Your task to perform on an android device: Search for "dell xps" on newegg, select the first entry, add it to the cart, then select checkout. Image 0: 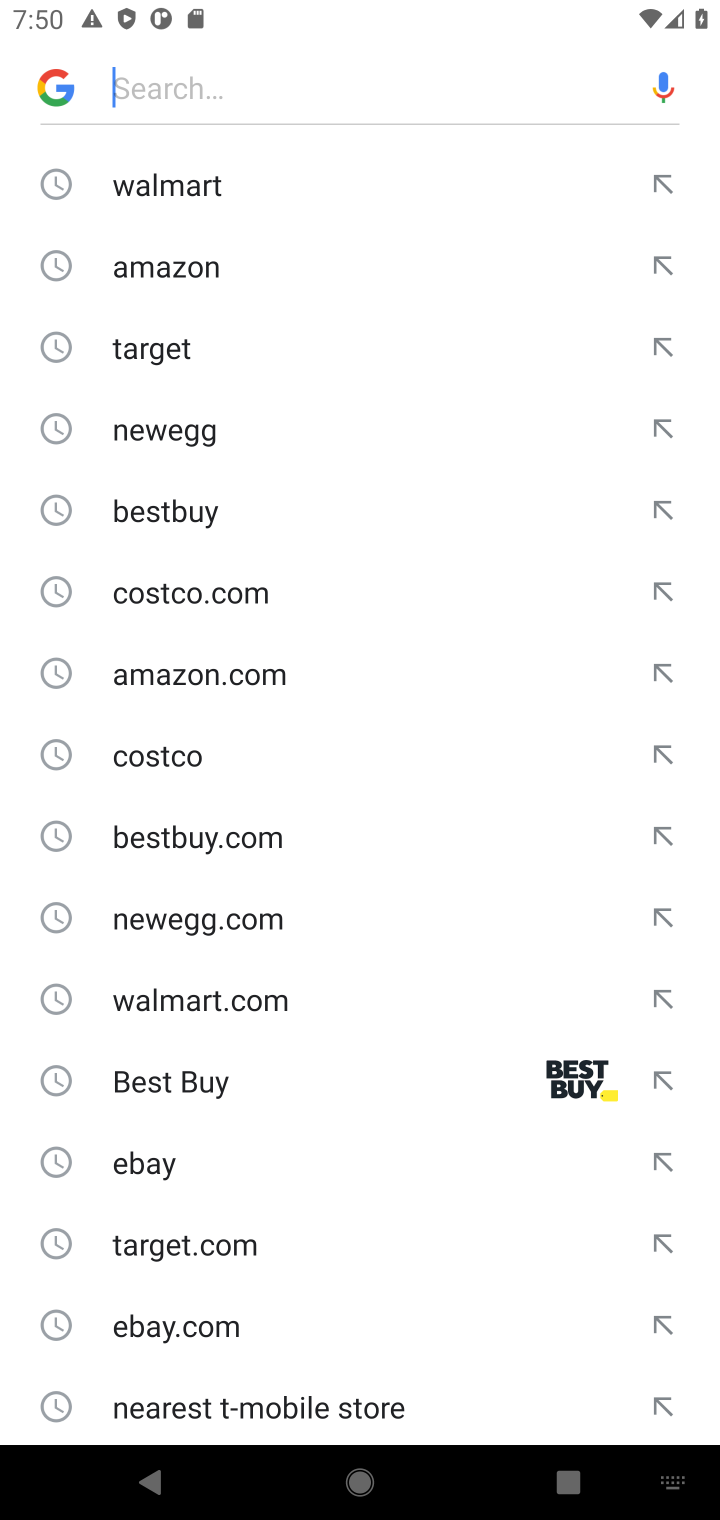
Step 0: type "newegg.com"
Your task to perform on an android device: Search for "dell xps" on newegg, select the first entry, add it to the cart, then select checkout. Image 1: 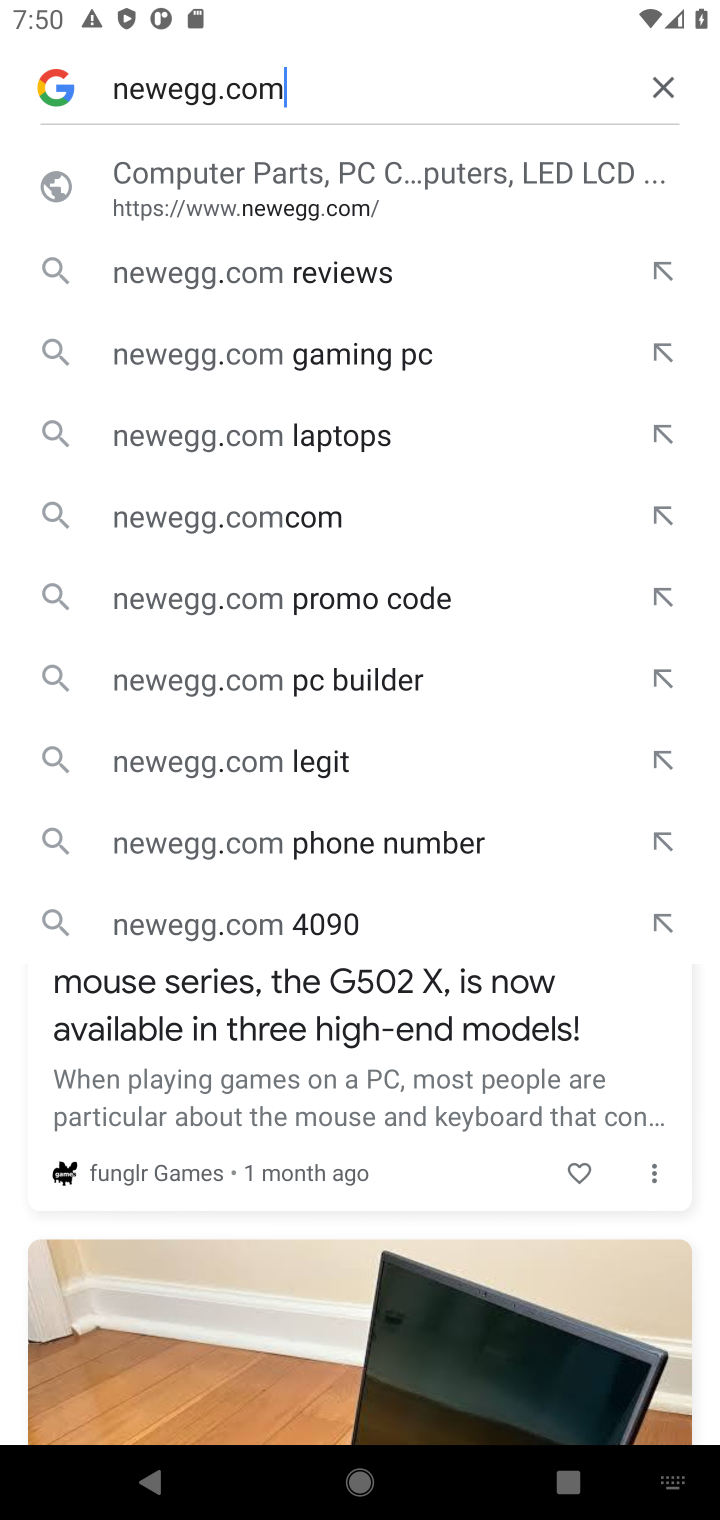
Step 1: click (192, 213)
Your task to perform on an android device: Search for "dell xps" on newegg, select the first entry, add it to the cart, then select checkout. Image 2: 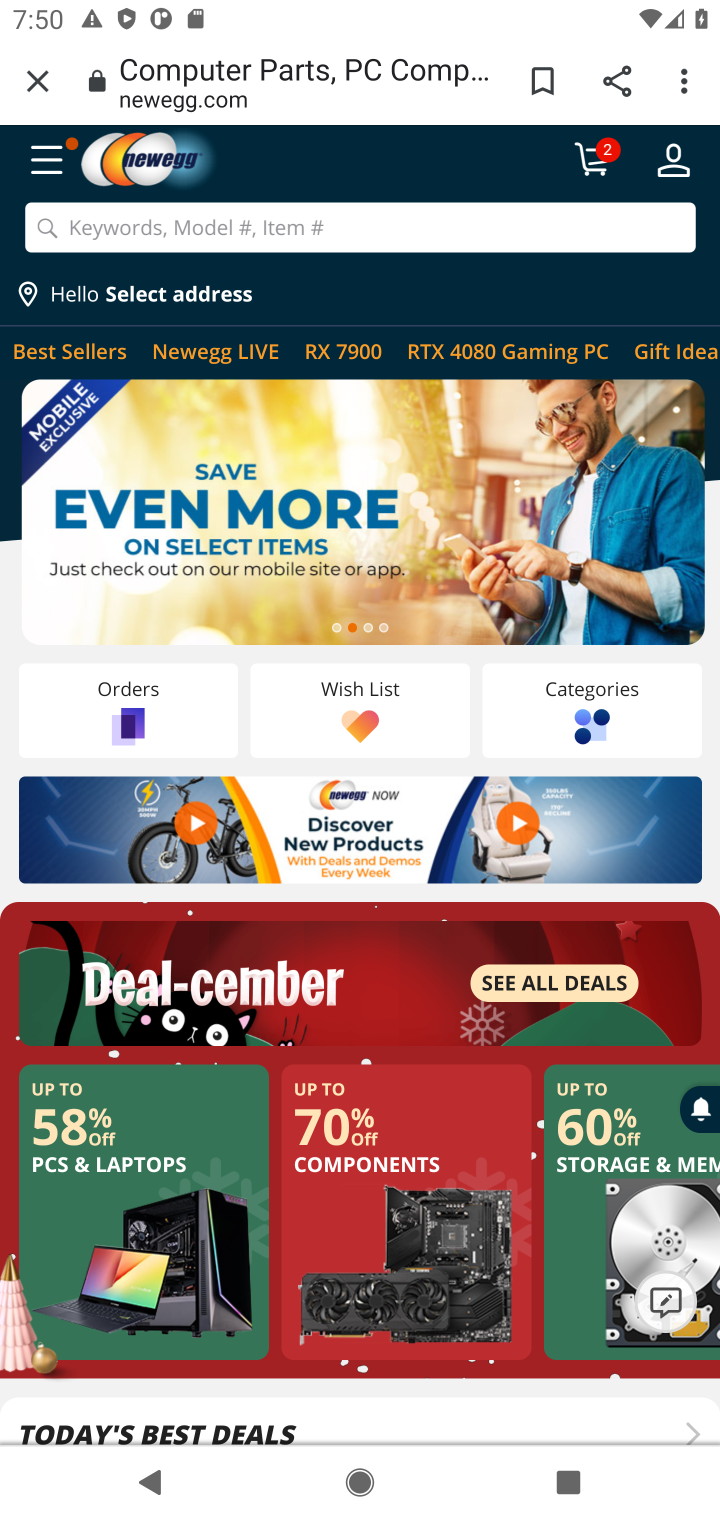
Step 2: click (203, 235)
Your task to perform on an android device: Search for "dell xps" on newegg, select the first entry, add it to the cart, then select checkout. Image 3: 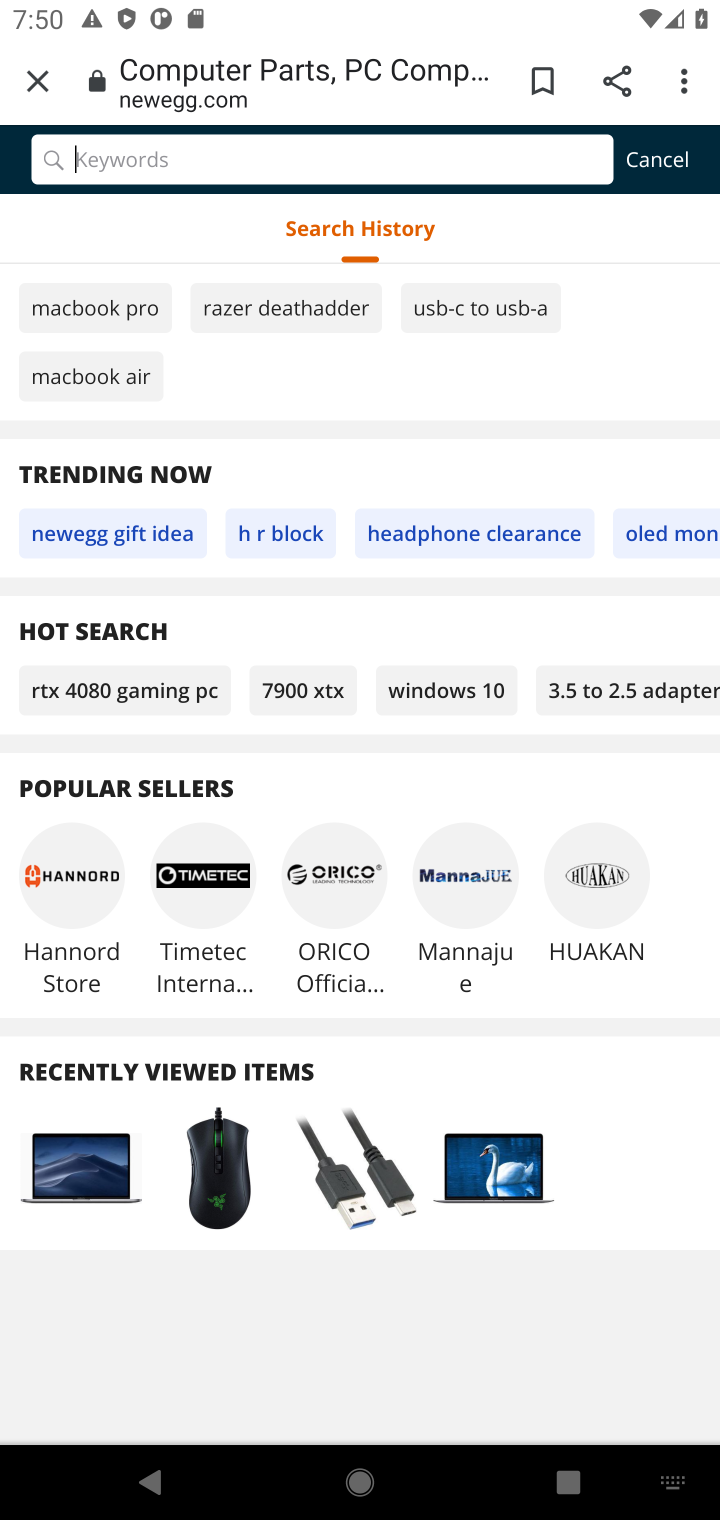
Step 3: type "dell xps"
Your task to perform on an android device: Search for "dell xps" on newegg, select the first entry, add it to the cart, then select checkout. Image 4: 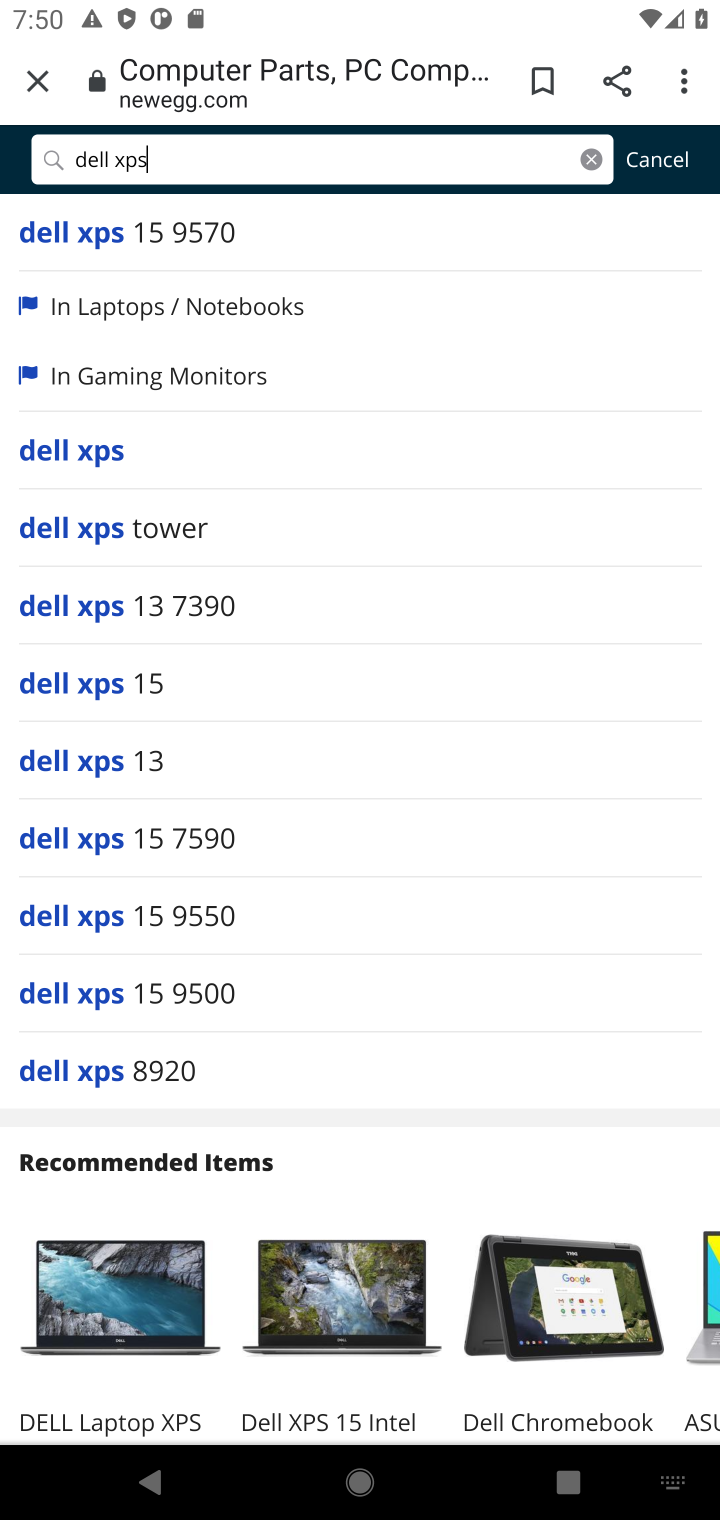
Step 4: click (93, 440)
Your task to perform on an android device: Search for "dell xps" on newegg, select the first entry, add it to the cart, then select checkout. Image 5: 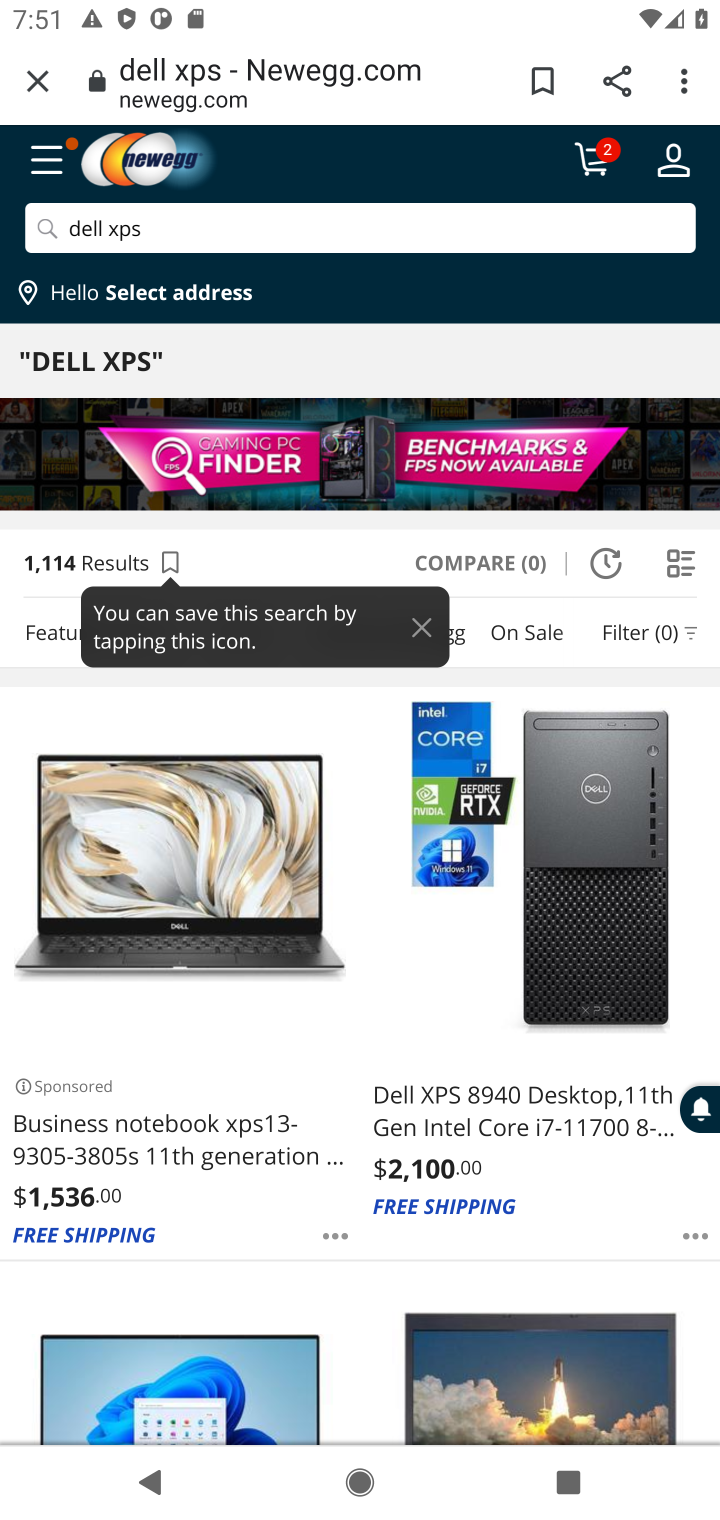
Step 5: click (152, 1139)
Your task to perform on an android device: Search for "dell xps" on newegg, select the first entry, add it to the cart, then select checkout. Image 6: 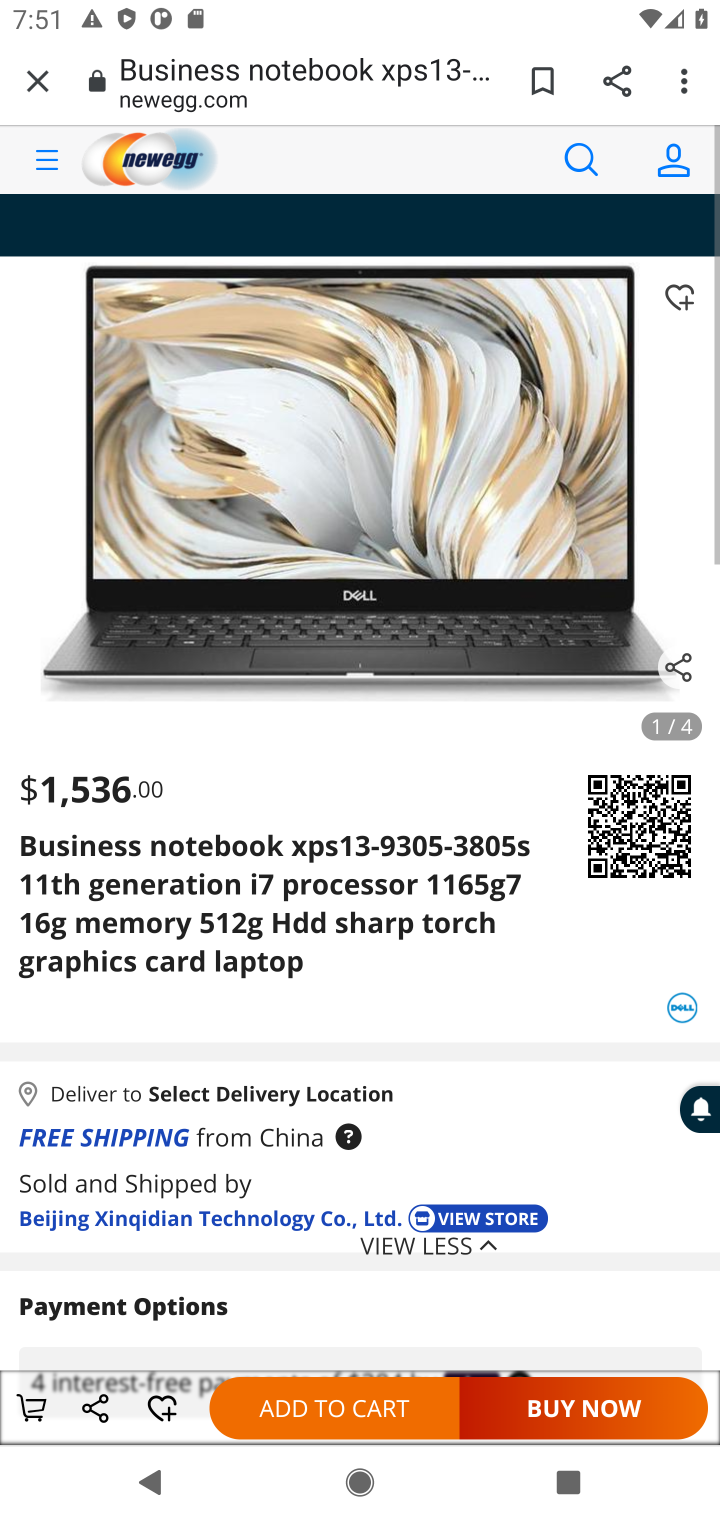
Step 6: click (308, 1398)
Your task to perform on an android device: Search for "dell xps" on newegg, select the first entry, add it to the cart, then select checkout. Image 7: 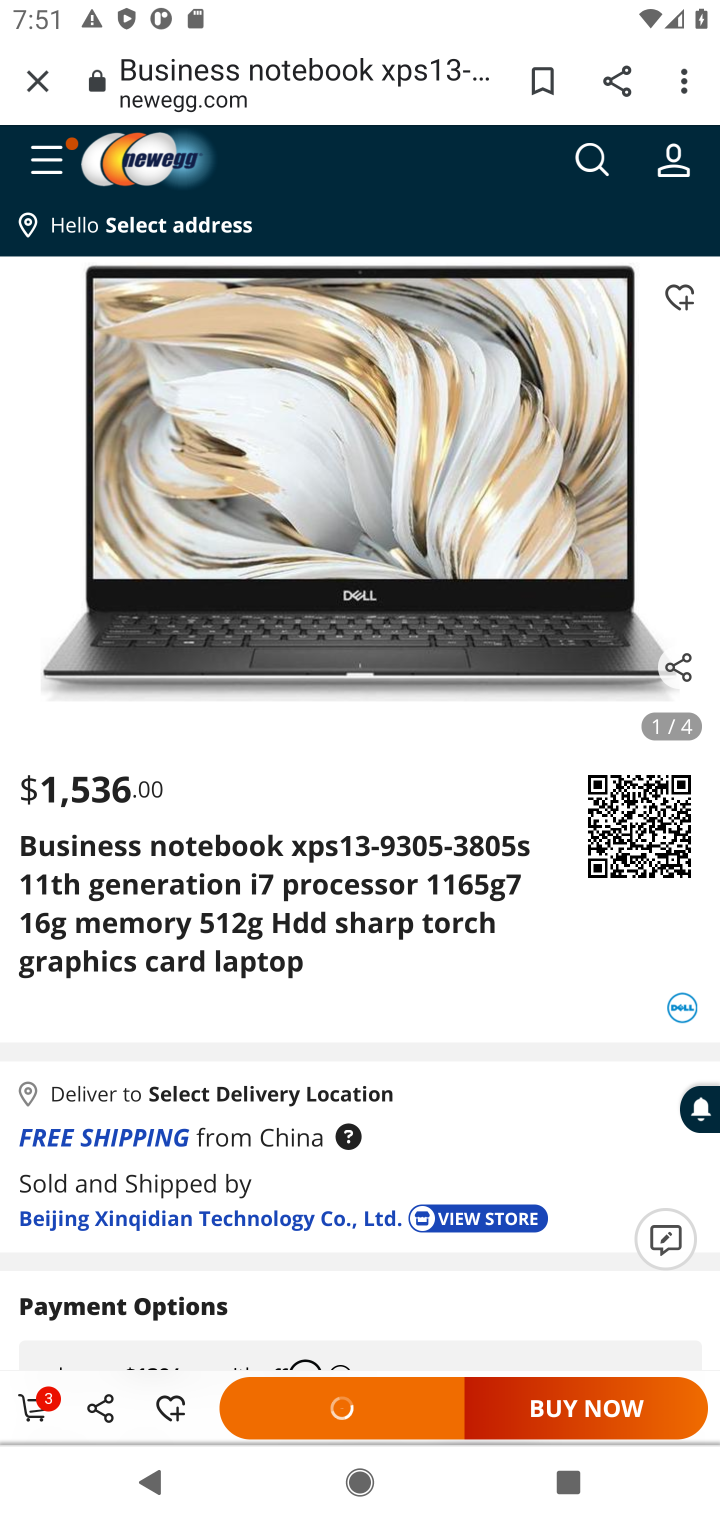
Step 7: click (31, 1408)
Your task to perform on an android device: Search for "dell xps" on newegg, select the first entry, add it to the cart, then select checkout. Image 8: 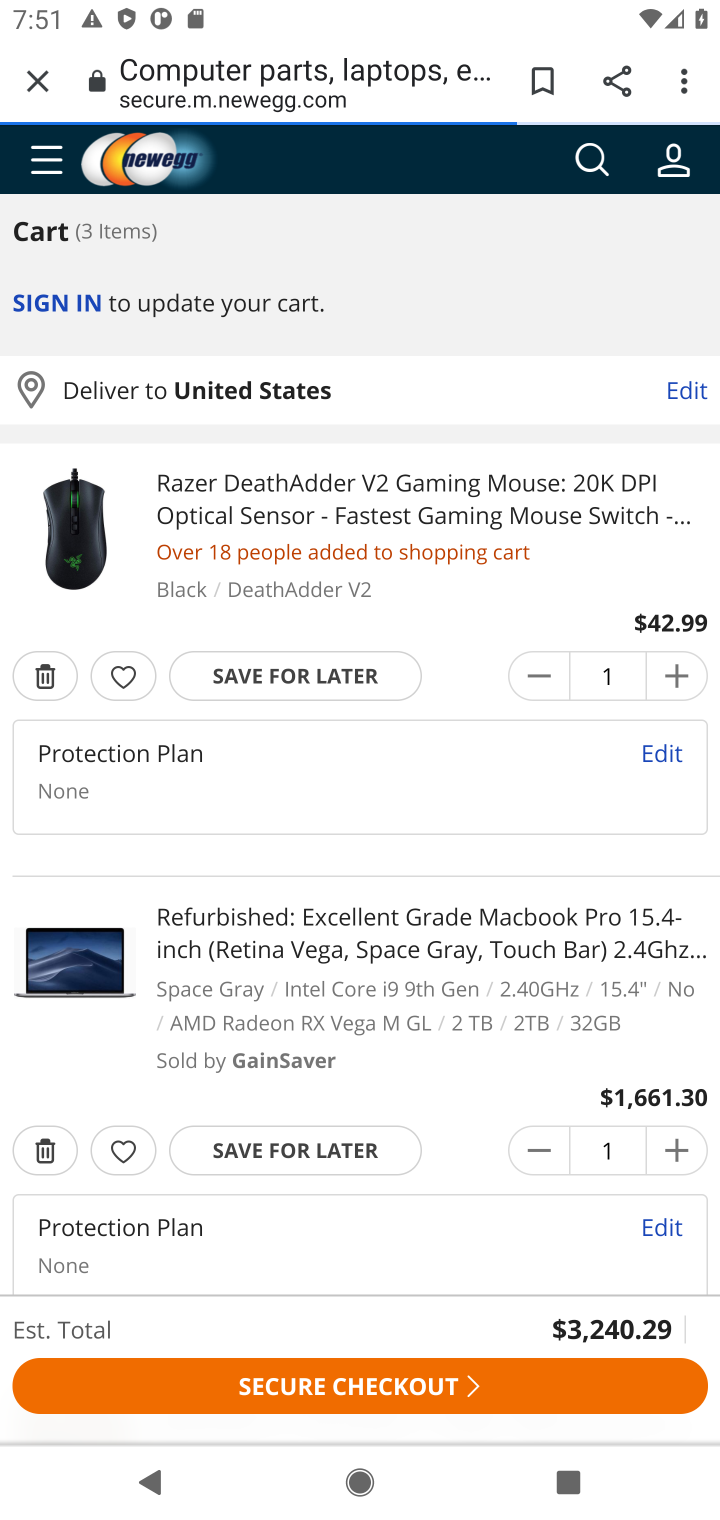
Step 8: click (143, 1375)
Your task to perform on an android device: Search for "dell xps" on newegg, select the first entry, add it to the cart, then select checkout. Image 9: 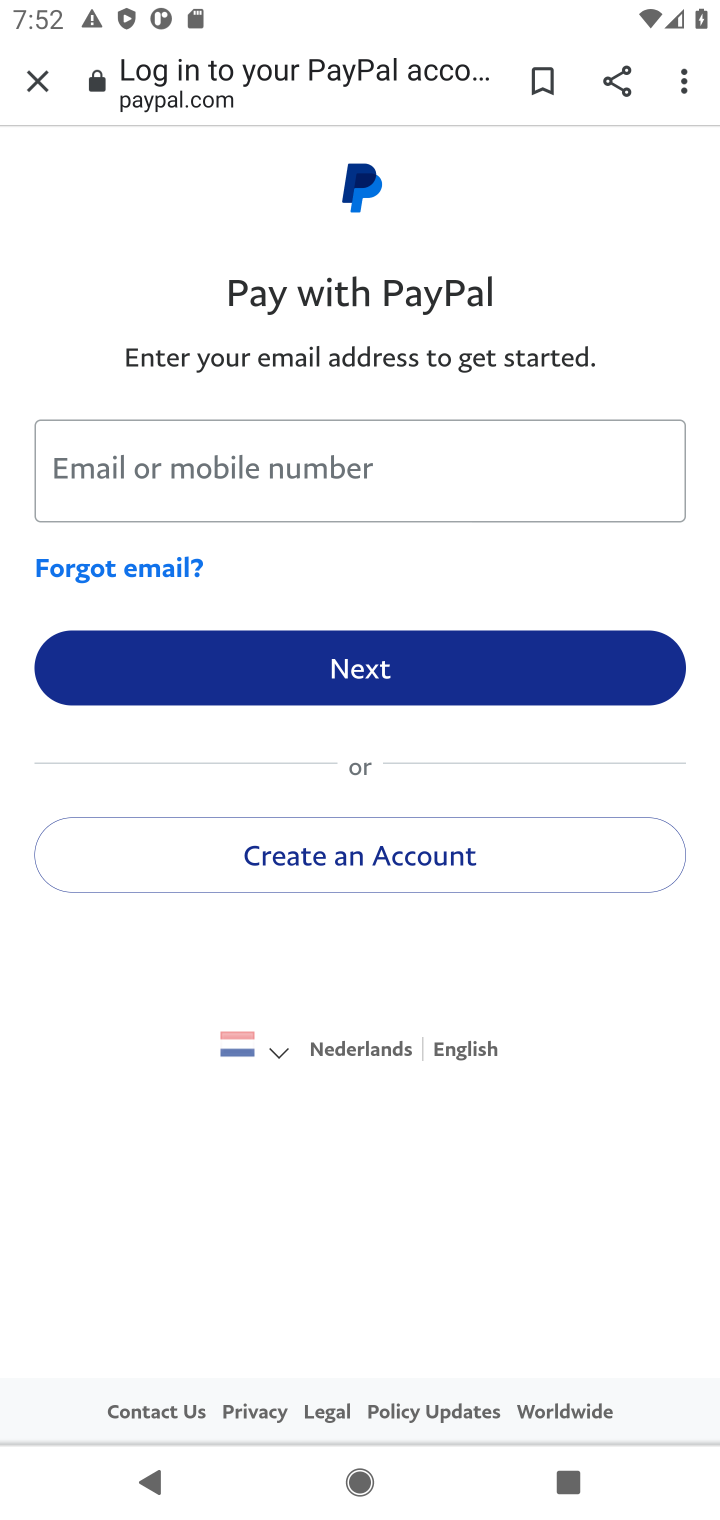
Step 9: task complete